Your task to perform on an android device: turn off location history Image 0: 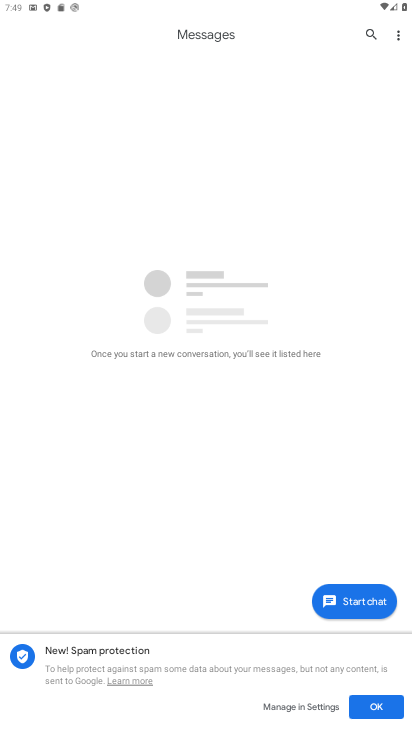
Step 0: press home button
Your task to perform on an android device: turn off location history Image 1: 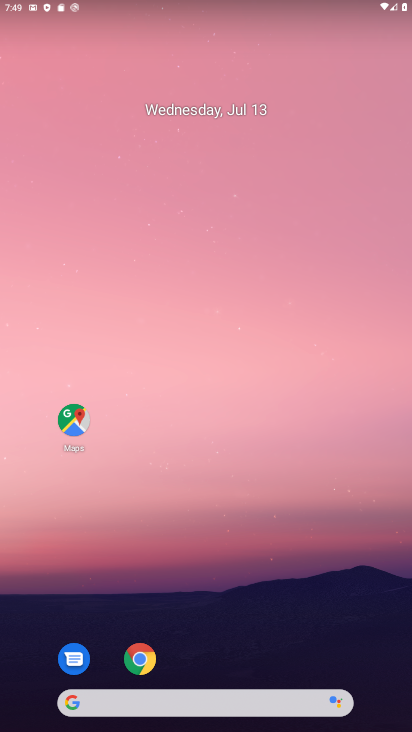
Step 1: drag from (188, 657) to (222, 211)
Your task to perform on an android device: turn off location history Image 2: 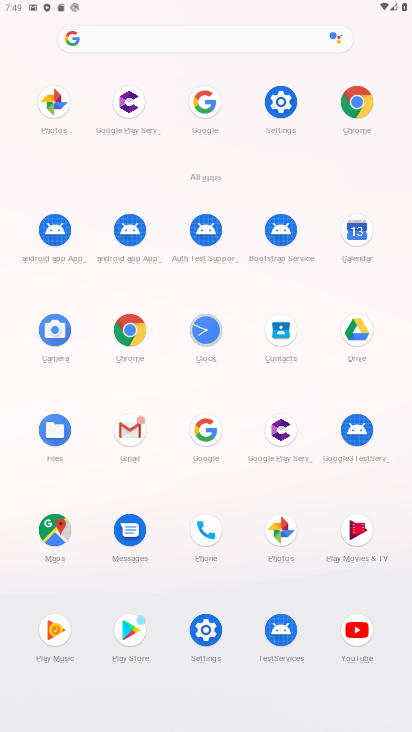
Step 2: click (269, 111)
Your task to perform on an android device: turn off location history Image 3: 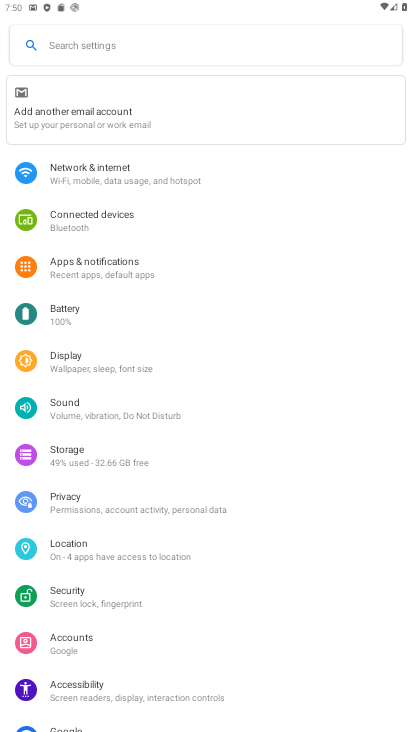
Step 3: click (116, 559)
Your task to perform on an android device: turn off location history Image 4: 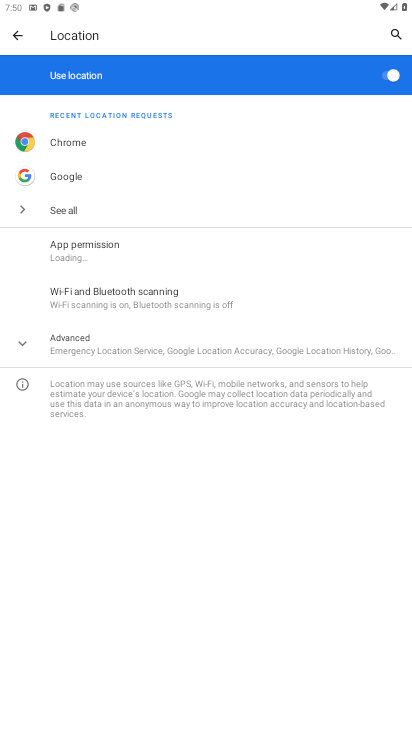
Step 4: click (162, 354)
Your task to perform on an android device: turn off location history Image 5: 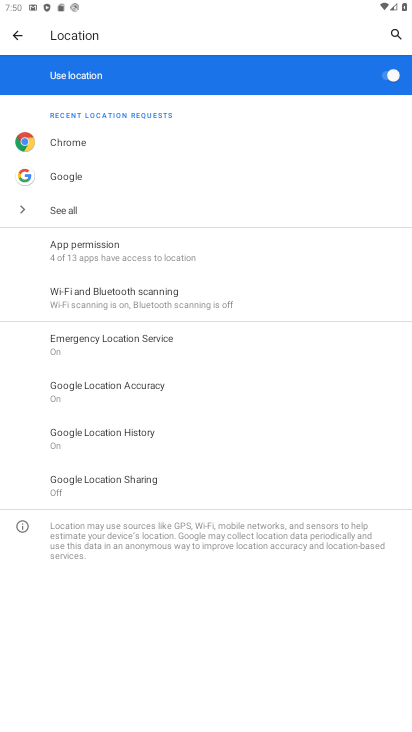
Step 5: click (170, 439)
Your task to perform on an android device: turn off location history Image 6: 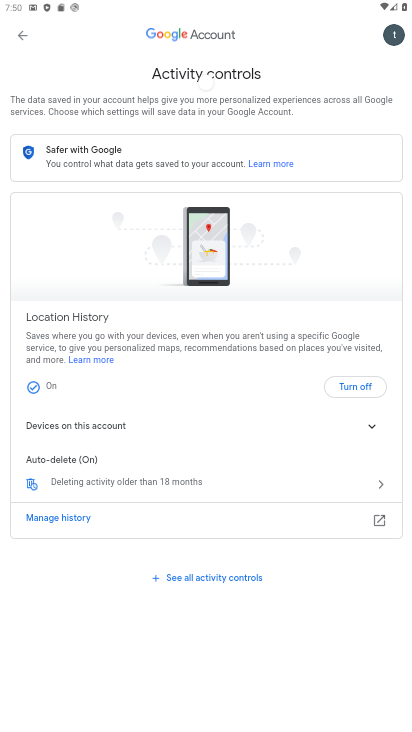
Step 6: click (337, 385)
Your task to perform on an android device: turn off location history Image 7: 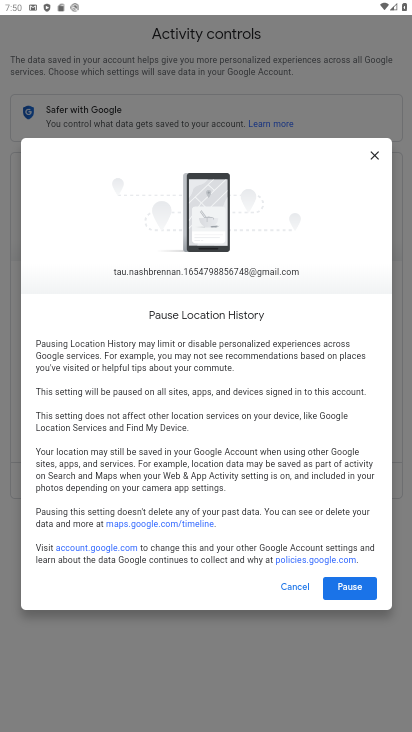
Step 7: click (353, 590)
Your task to perform on an android device: turn off location history Image 8: 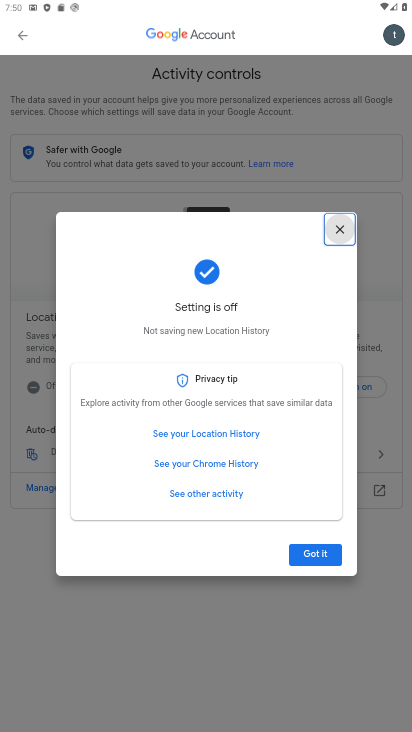
Step 8: task complete